Your task to perform on an android device: turn notification dots off Image 0: 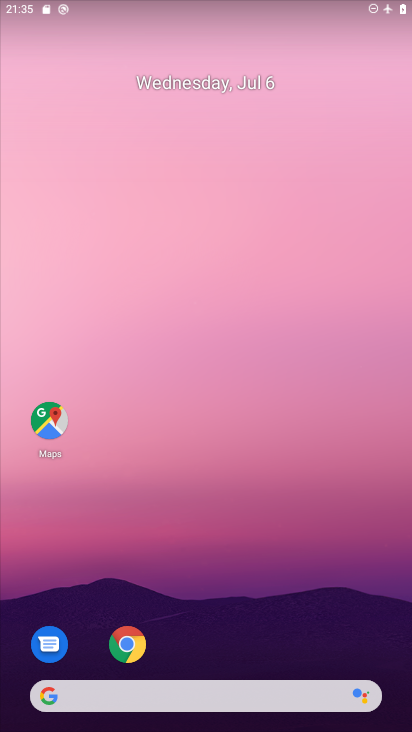
Step 0: drag from (217, 641) to (183, 212)
Your task to perform on an android device: turn notification dots off Image 1: 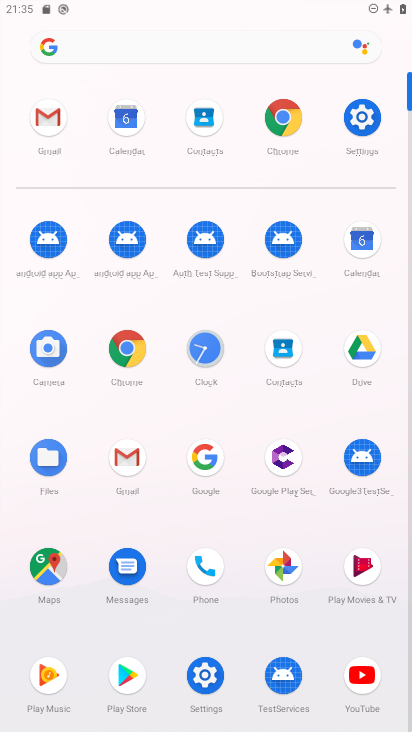
Step 1: click (349, 133)
Your task to perform on an android device: turn notification dots off Image 2: 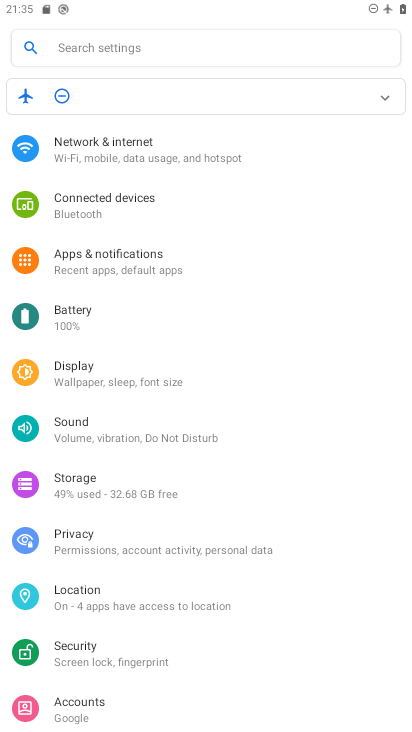
Step 2: click (154, 251)
Your task to perform on an android device: turn notification dots off Image 3: 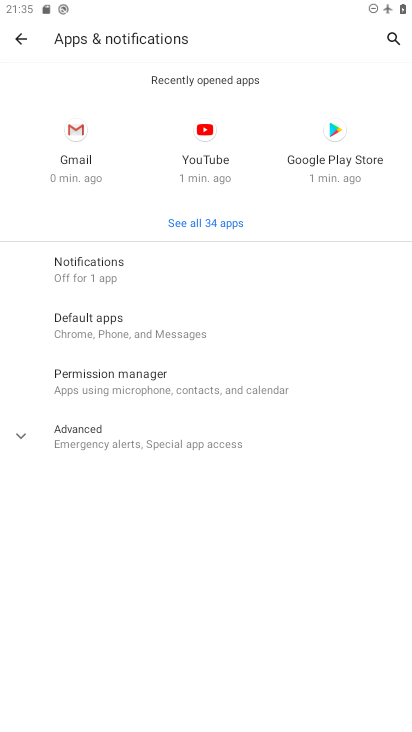
Step 3: click (154, 251)
Your task to perform on an android device: turn notification dots off Image 4: 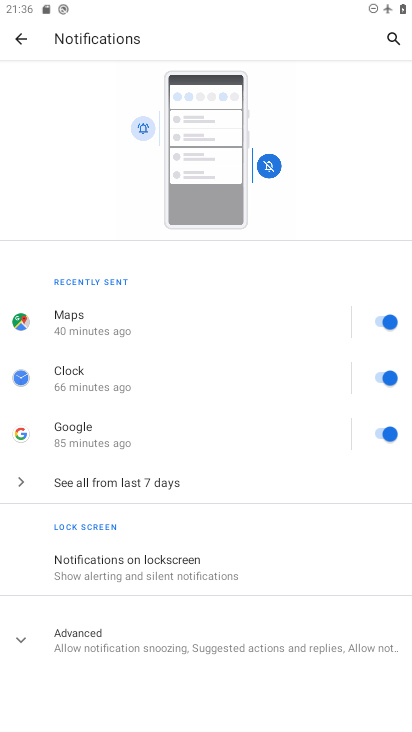
Step 4: click (158, 627)
Your task to perform on an android device: turn notification dots off Image 5: 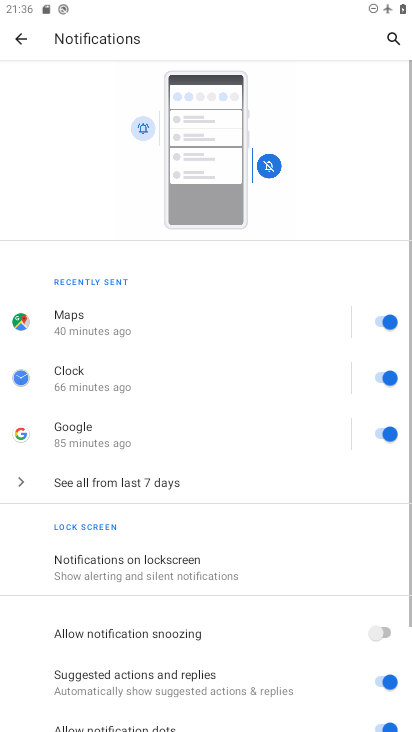
Step 5: drag from (237, 635) to (218, 364)
Your task to perform on an android device: turn notification dots off Image 6: 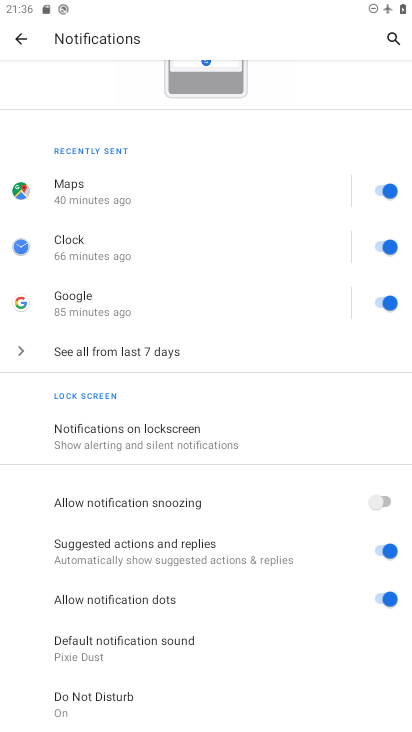
Step 6: click (379, 596)
Your task to perform on an android device: turn notification dots off Image 7: 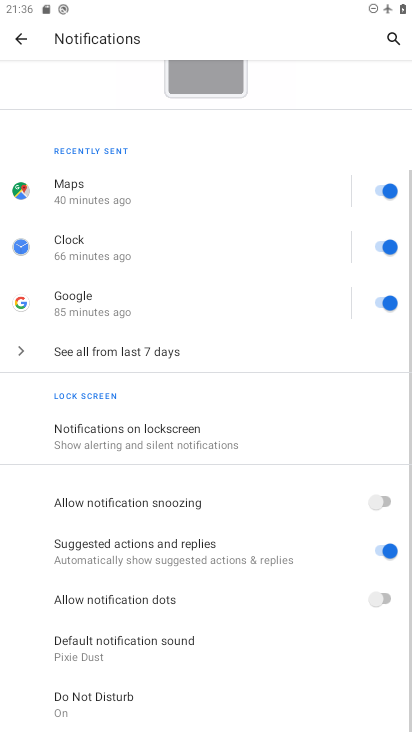
Step 7: task complete